Your task to perform on an android device: Find coffee shops on Maps Image 0: 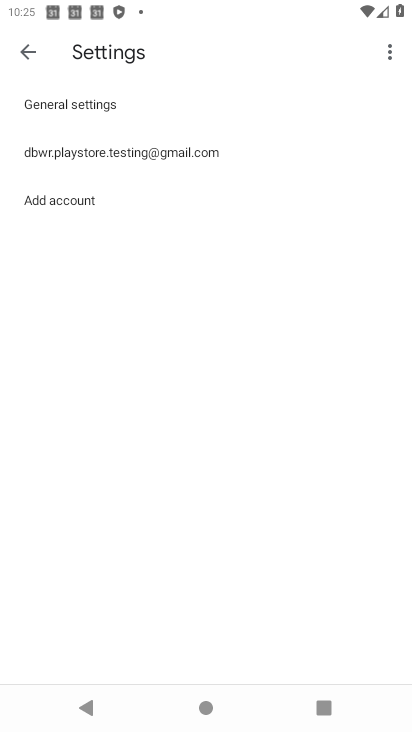
Step 0: press home button
Your task to perform on an android device: Find coffee shops on Maps Image 1: 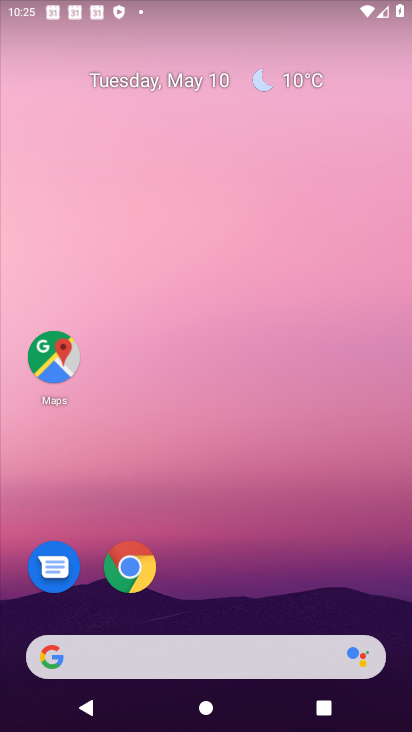
Step 1: drag from (246, 648) to (251, 270)
Your task to perform on an android device: Find coffee shops on Maps Image 2: 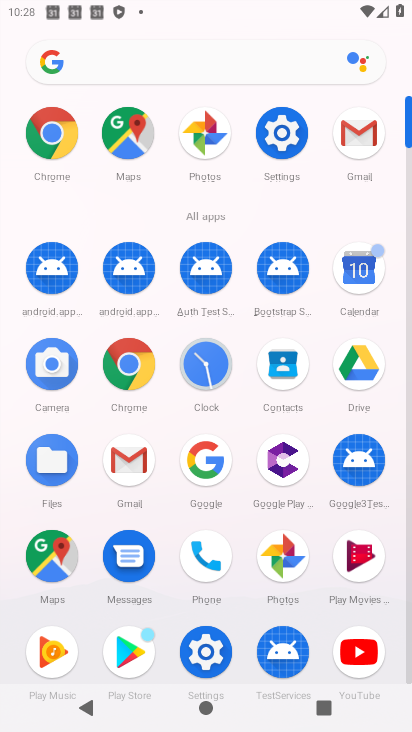
Step 2: click (281, 556)
Your task to perform on an android device: Find coffee shops on Maps Image 3: 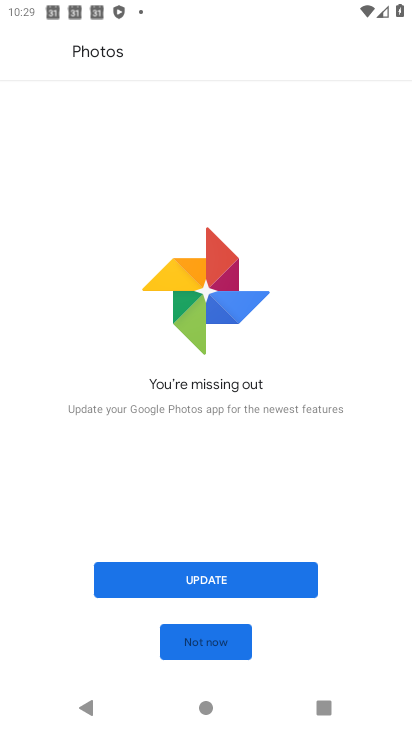
Step 3: task complete